Your task to perform on an android device: turn off location Image 0: 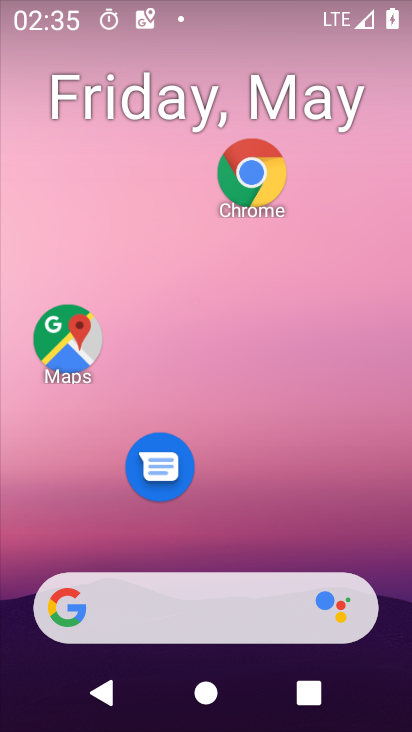
Step 0: press home button
Your task to perform on an android device: turn off location Image 1: 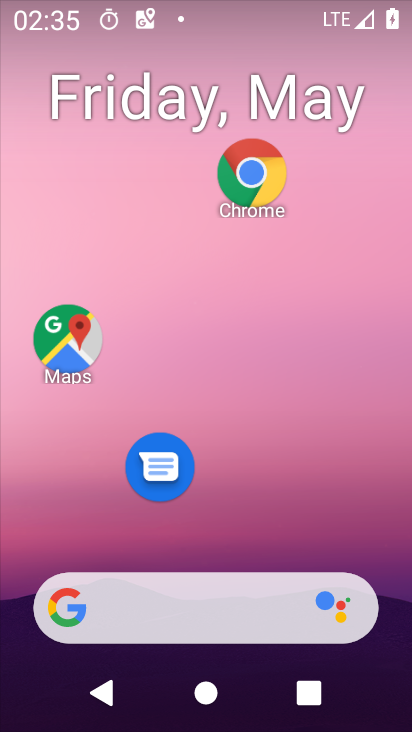
Step 1: drag from (235, 645) to (261, 368)
Your task to perform on an android device: turn off location Image 2: 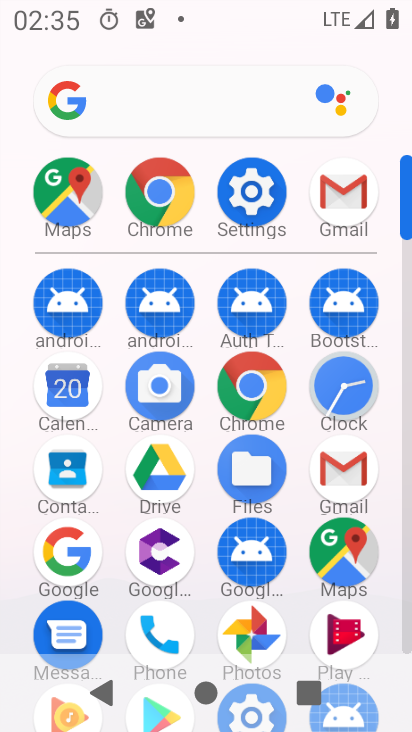
Step 2: click (261, 188)
Your task to perform on an android device: turn off location Image 3: 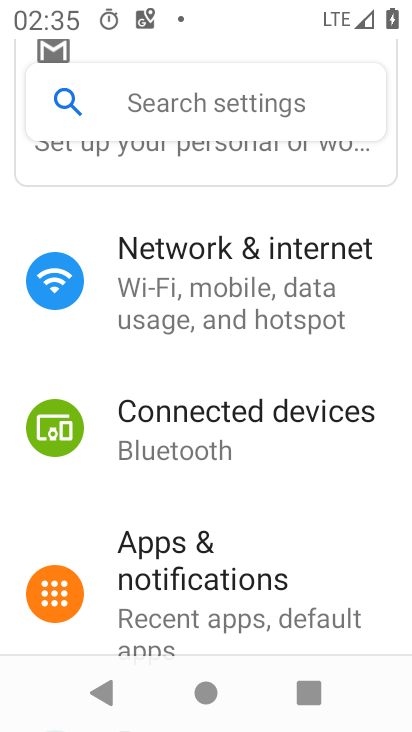
Step 3: click (169, 117)
Your task to perform on an android device: turn off location Image 4: 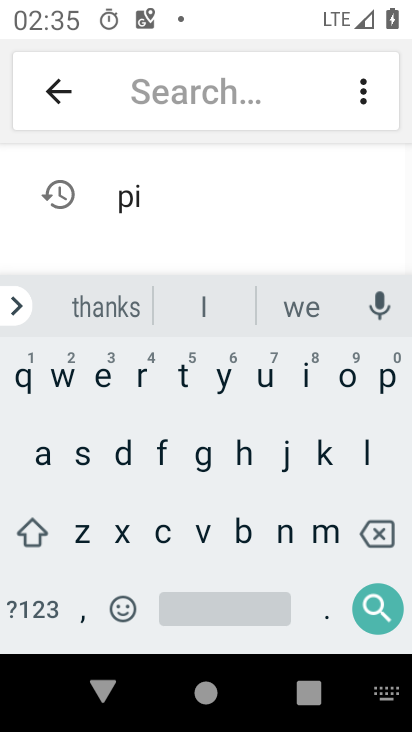
Step 4: click (372, 446)
Your task to perform on an android device: turn off location Image 5: 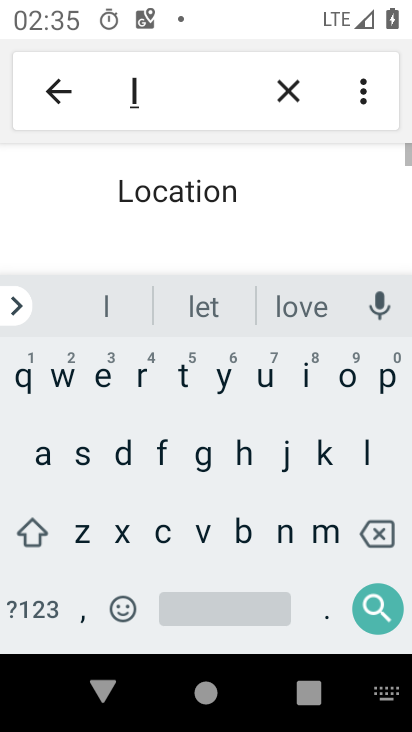
Step 5: click (343, 379)
Your task to perform on an android device: turn off location Image 6: 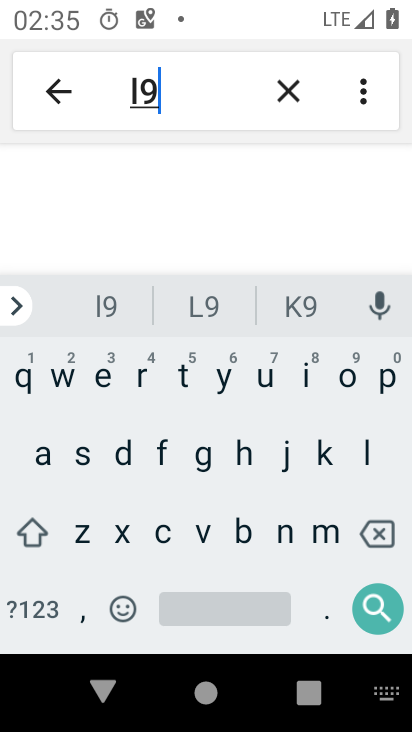
Step 6: click (381, 518)
Your task to perform on an android device: turn off location Image 7: 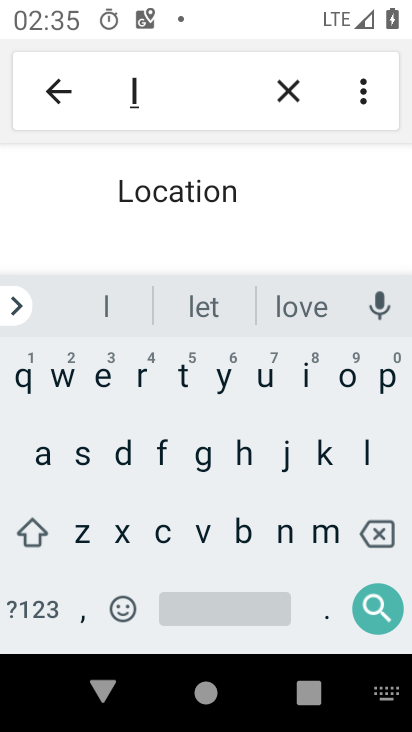
Step 7: click (337, 382)
Your task to perform on an android device: turn off location Image 8: 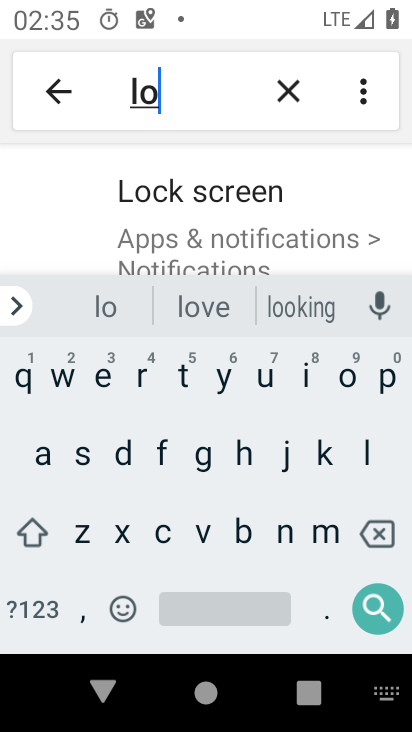
Step 8: press back button
Your task to perform on an android device: turn off location Image 9: 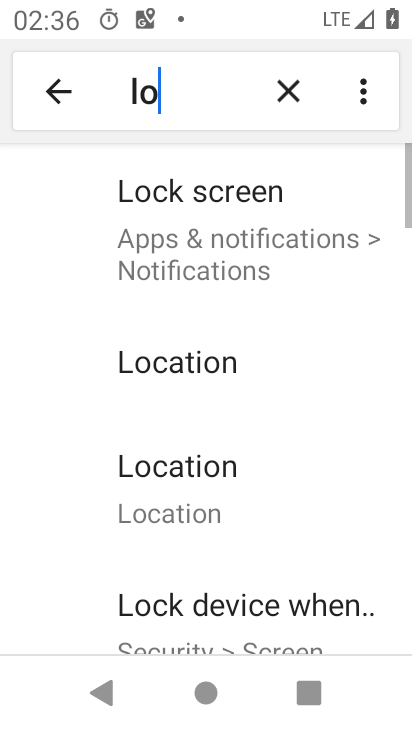
Step 9: click (194, 477)
Your task to perform on an android device: turn off location Image 10: 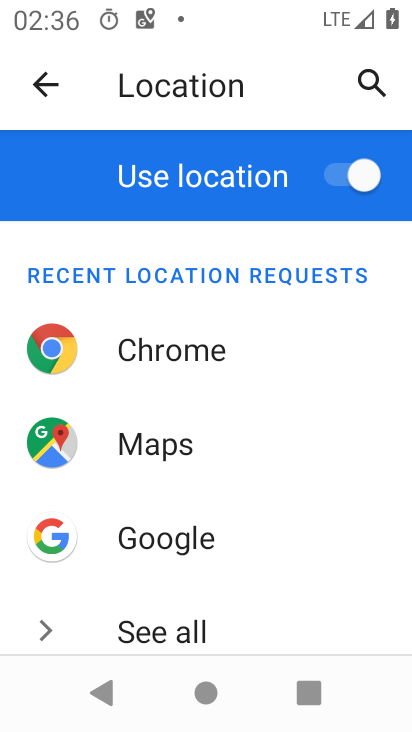
Step 10: click (355, 179)
Your task to perform on an android device: turn off location Image 11: 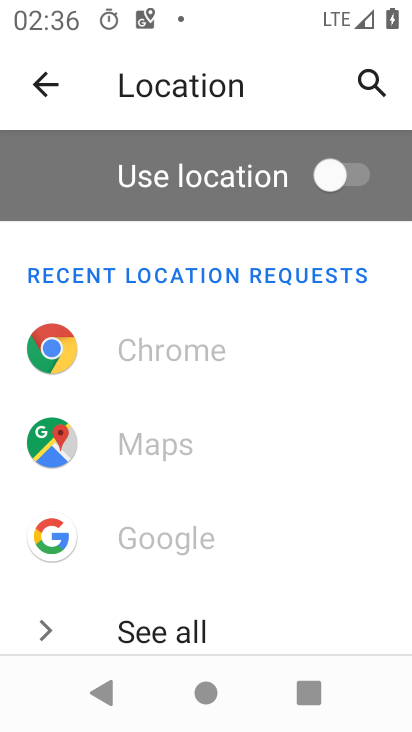
Step 11: task complete